Your task to perform on an android device: Is it going to rain today? Image 0: 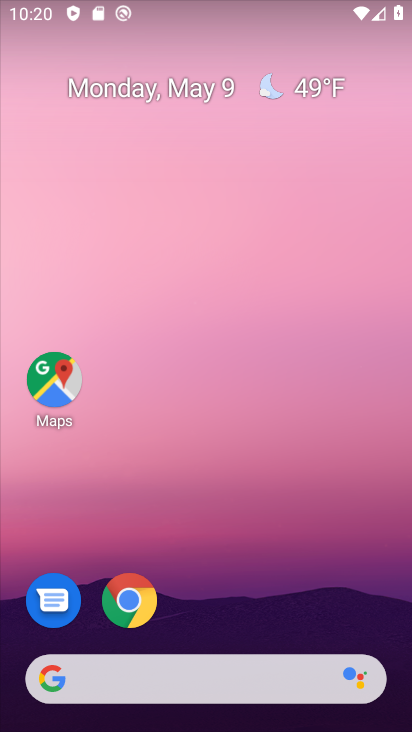
Step 0: drag from (334, 581) to (295, 196)
Your task to perform on an android device: Is it going to rain today? Image 1: 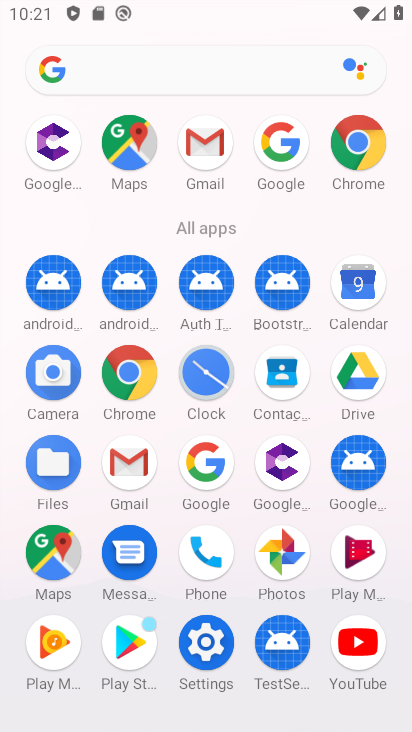
Step 1: click (127, 386)
Your task to perform on an android device: Is it going to rain today? Image 2: 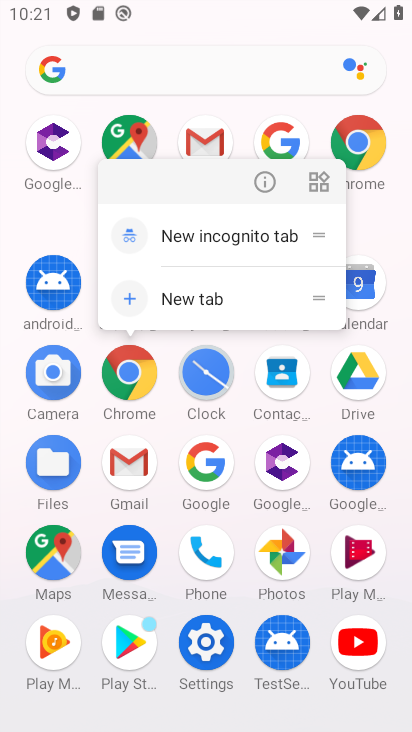
Step 2: click (127, 388)
Your task to perform on an android device: Is it going to rain today? Image 3: 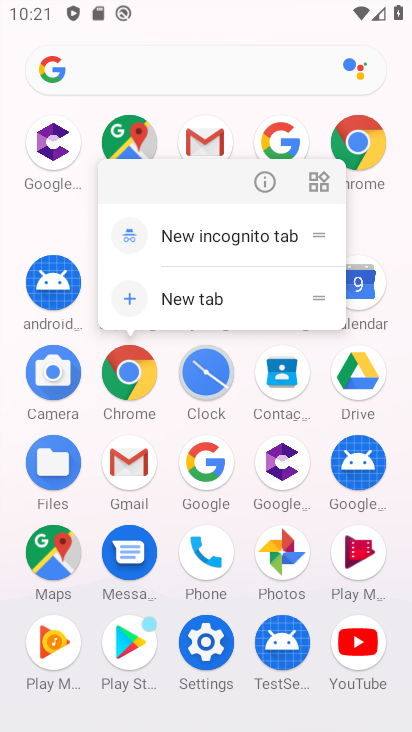
Step 3: click (144, 393)
Your task to perform on an android device: Is it going to rain today? Image 4: 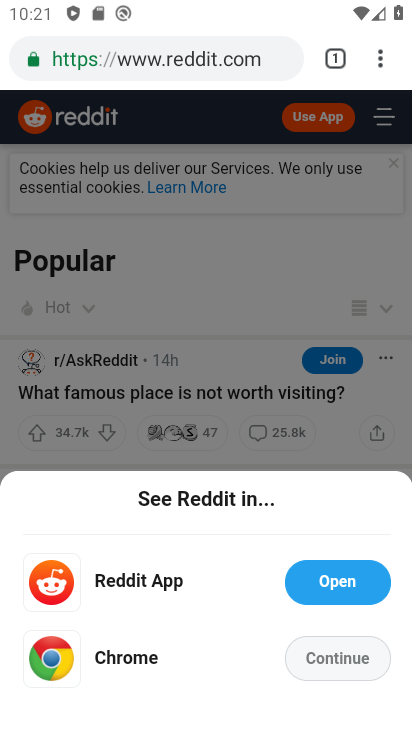
Step 4: click (240, 58)
Your task to perform on an android device: Is it going to rain today? Image 5: 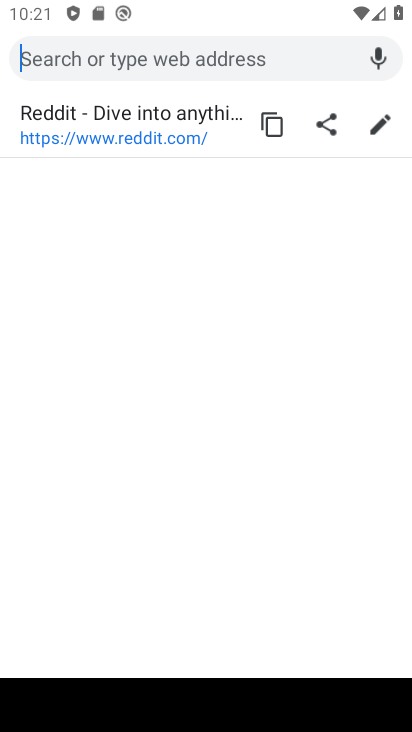
Step 5: type "is it going to rain today"
Your task to perform on an android device: Is it going to rain today? Image 6: 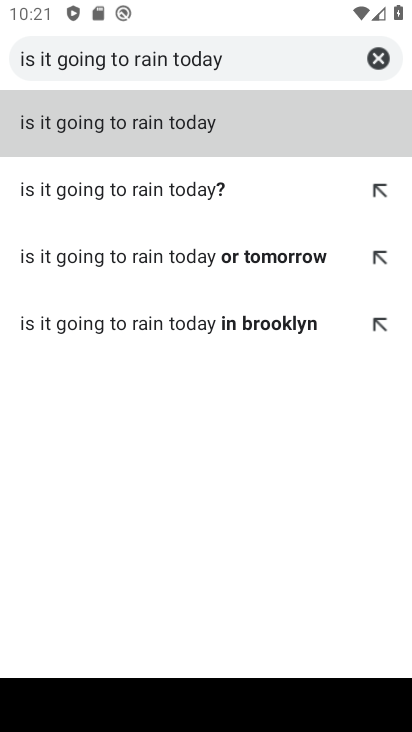
Step 6: click (82, 113)
Your task to perform on an android device: Is it going to rain today? Image 7: 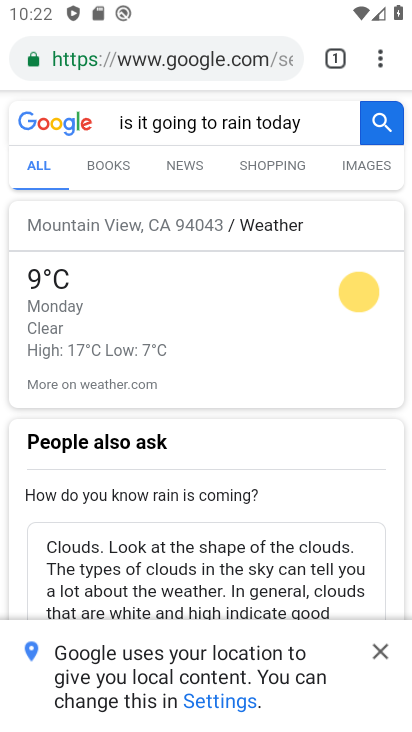
Step 7: task complete